Your task to perform on an android device: Go to location settings Image 0: 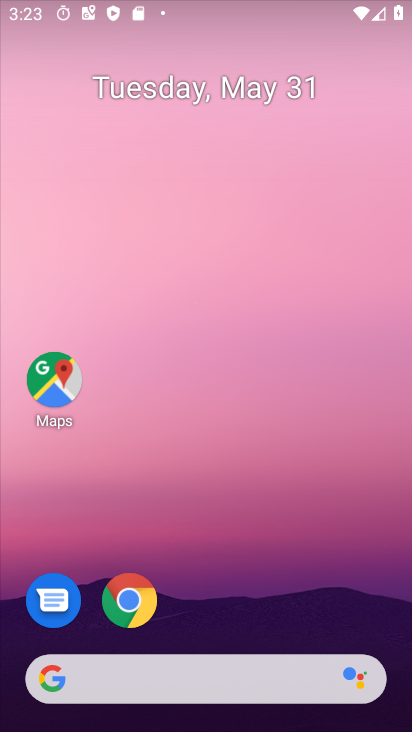
Step 0: click (210, 26)
Your task to perform on an android device: Go to location settings Image 1: 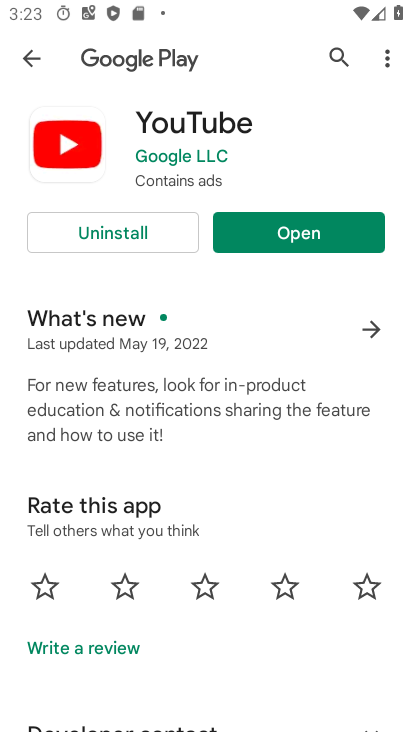
Step 1: press home button
Your task to perform on an android device: Go to location settings Image 2: 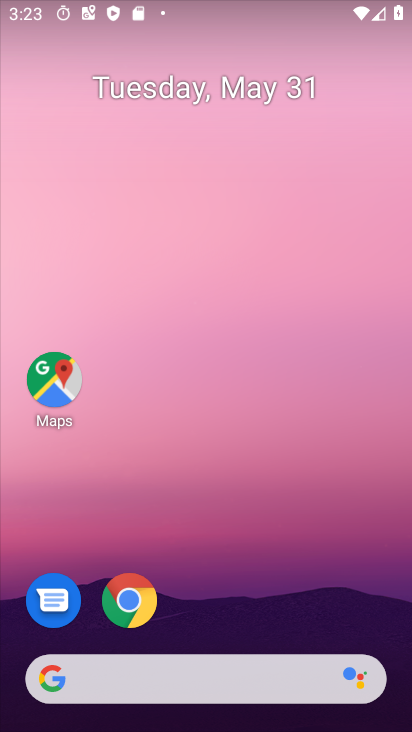
Step 2: drag from (225, 634) to (184, 5)
Your task to perform on an android device: Go to location settings Image 3: 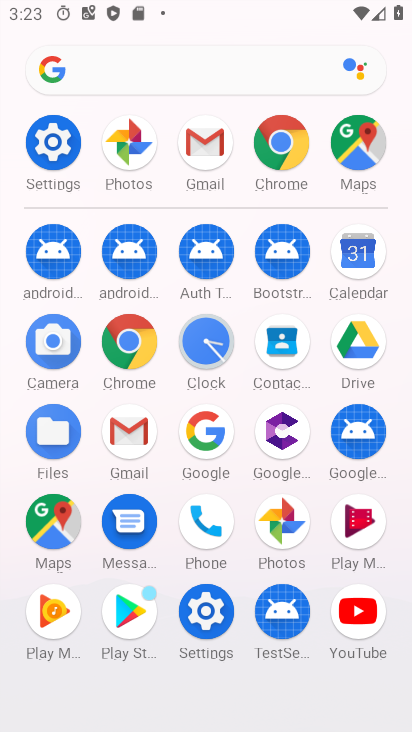
Step 3: click (48, 141)
Your task to perform on an android device: Go to location settings Image 4: 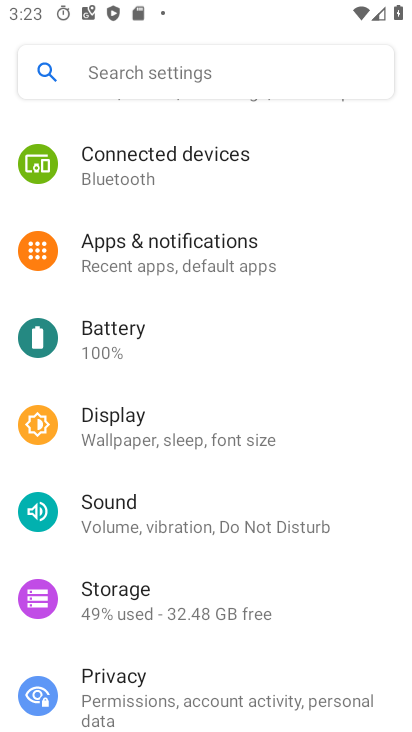
Step 4: drag from (184, 687) to (187, 128)
Your task to perform on an android device: Go to location settings Image 5: 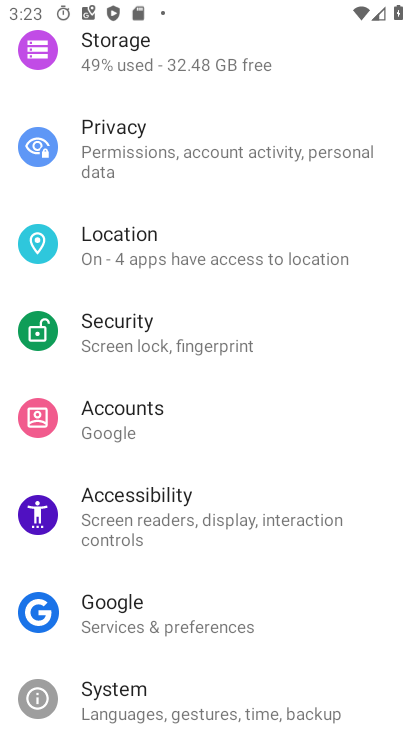
Step 5: click (187, 233)
Your task to perform on an android device: Go to location settings Image 6: 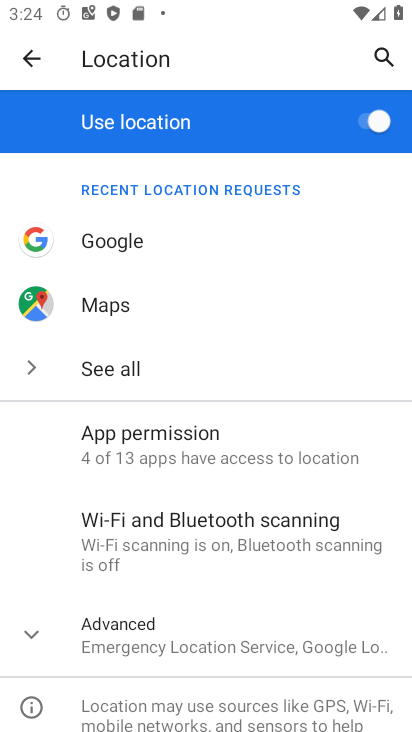
Step 6: click (25, 635)
Your task to perform on an android device: Go to location settings Image 7: 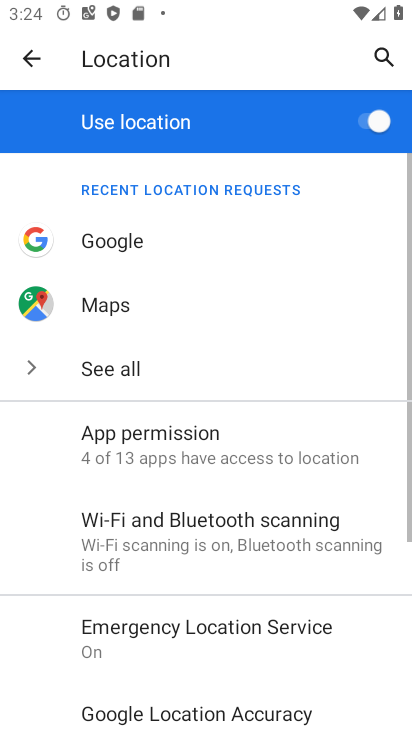
Step 7: task complete